Your task to perform on an android device: change the clock display to digital Image 0: 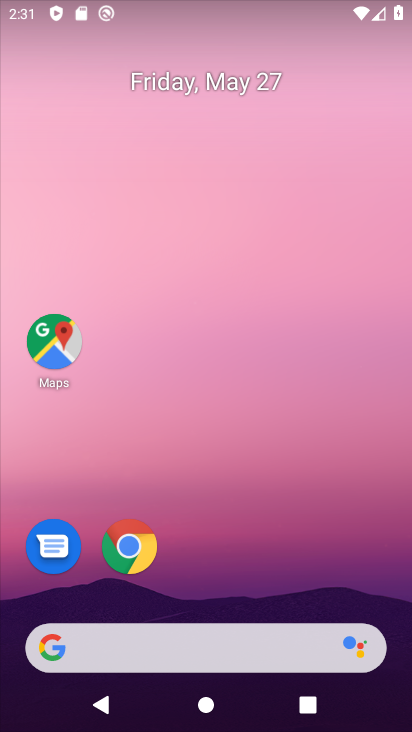
Step 0: drag from (186, 580) to (270, 191)
Your task to perform on an android device: change the clock display to digital Image 1: 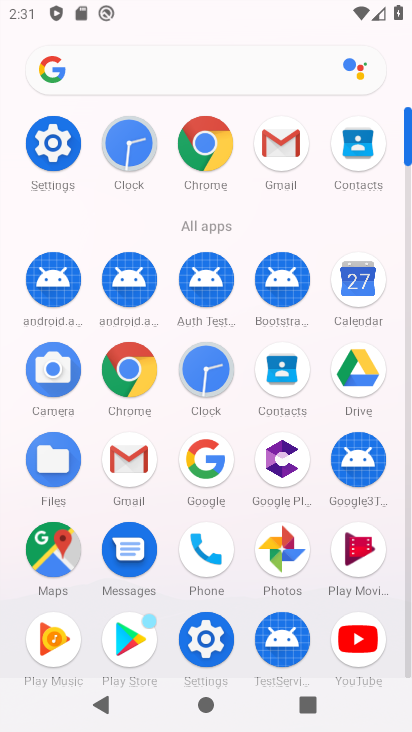
Step 1: click (196, 374)
Your task to perform on an android device: change the clock display to digital Image 2: 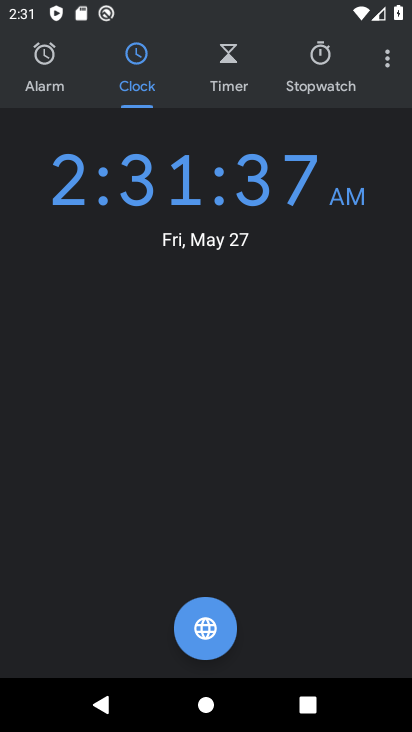
Step 2: click (390, 63)
Your task to perform on an android device: change the clock display to digital Image 3: 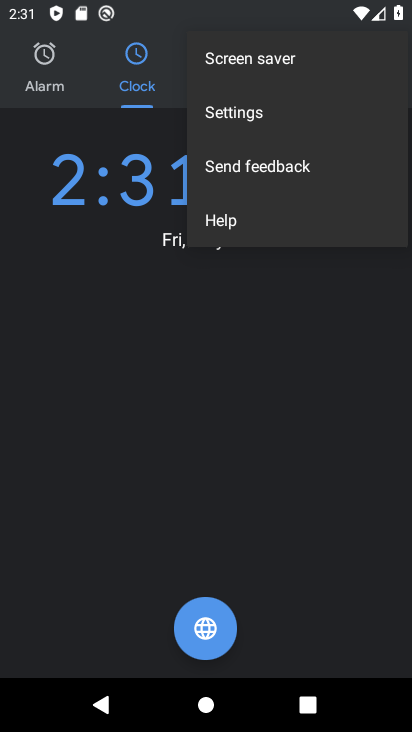
Step 3: click (274, 120)
Your task to perform on an android device: change the clock display to digital Image 4: 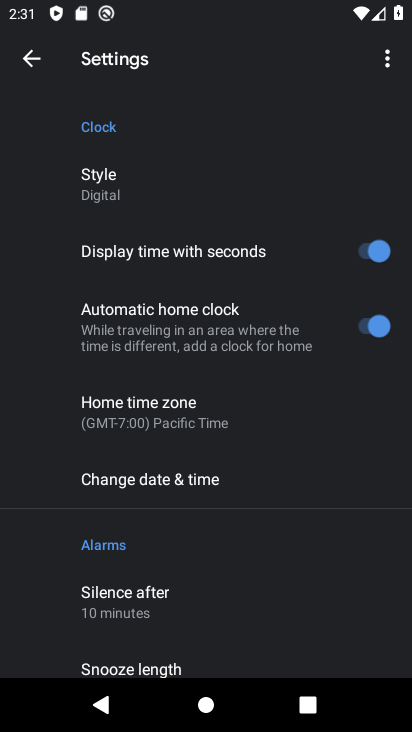
Step 4: click (137, 200)
Your task to perform on an android device: change the clock display to digital Image 5: 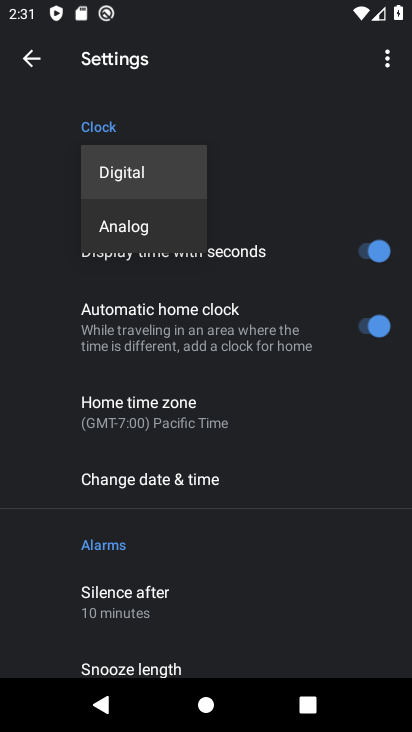
Step 5: task complete